Your task to perform on an android device: Open Maps and search for coffee Image 0: 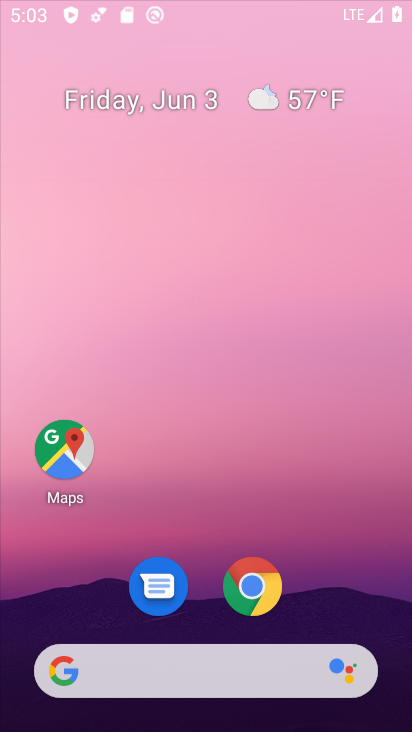
Step 0: press home button
Your task to perform on an android device: Open Maps and search for coffee Image 1: 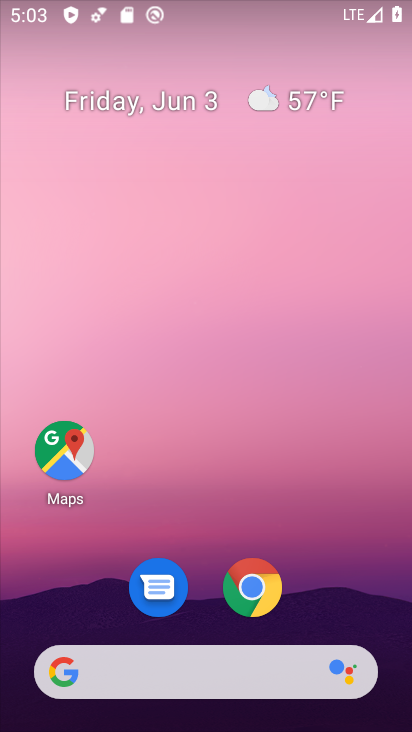
Step 1: click (44, 464)
Your task to perform on an android device: Open Maps and search for coffee Image 2: 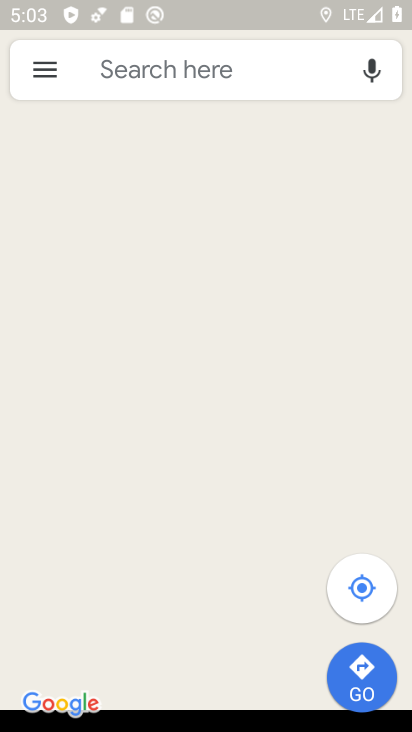
Step 2: click (104, 51)
Your task to perform on an android device: Open Maps and search for coffee Image 3: 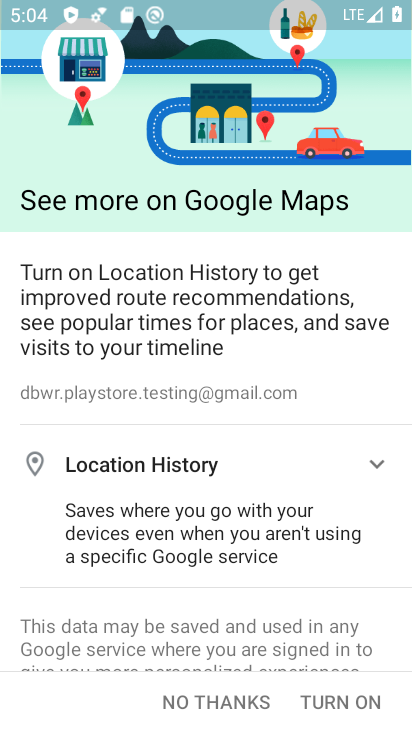
Step 3: click (340, 708)
Your task to perform on an android device: Open Maps and search for coffee Image 4: 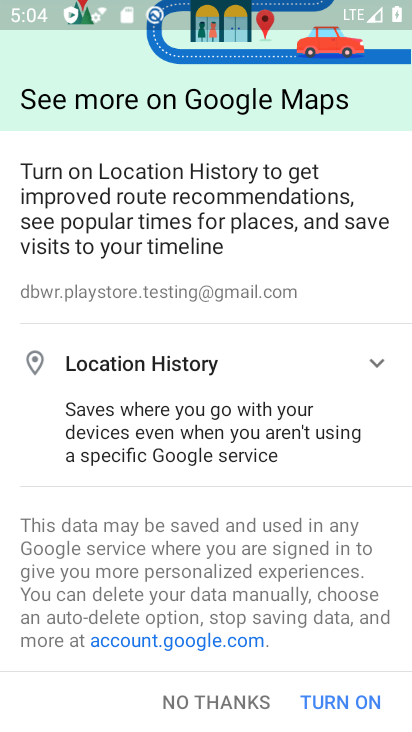
Step 4: click (340, 708)
Your task to perform on an android device: Open Maps and search for coffee Image 5: 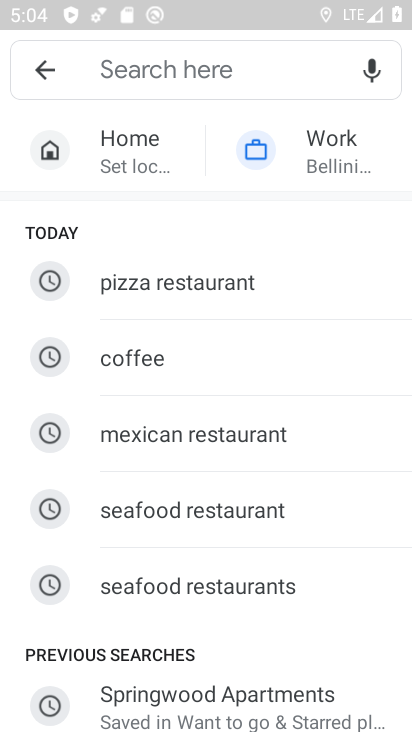
Step 5: click (159, 359)
Your task to perform on an android device: Open Maps and search for coffee Image 6: 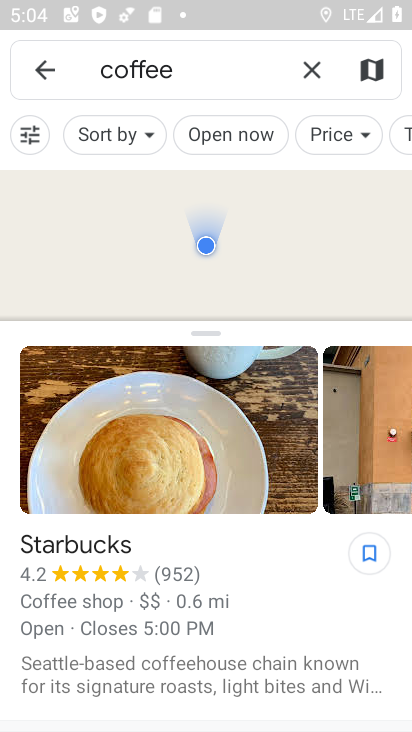
Step 6: task complete